Your task to perform on an android device: Is it going to rain this weekend? Image 0: 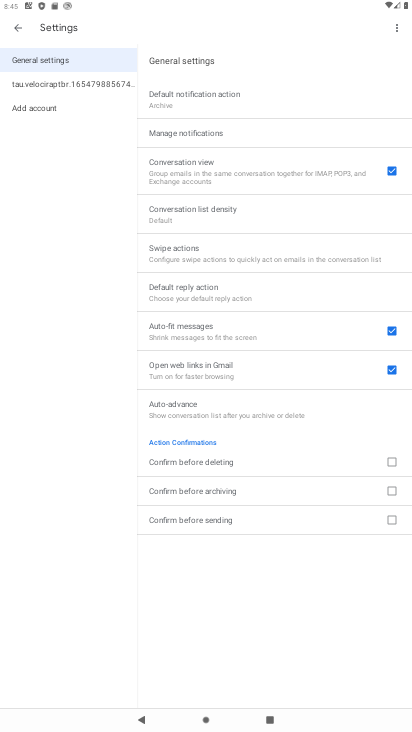
Step 0: press home button
Your task to perform on an android device: Is it going to rain this weekend? Image 1: 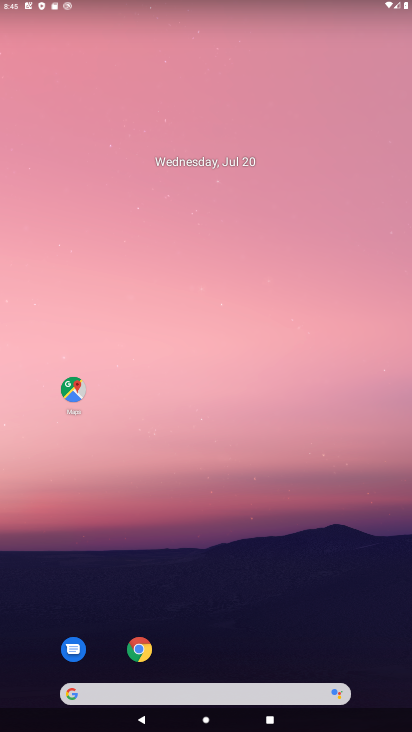
Step 1: drag from (184, 691) to (201, 87)
Your task to perform on an android device: Is it going to rain this weekend? Image 2: 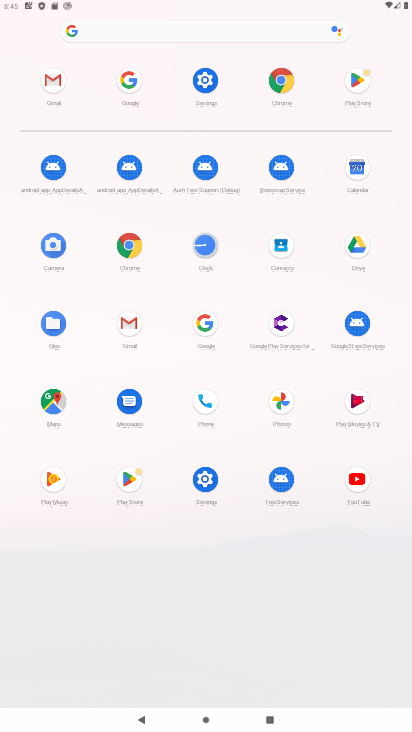
Step 2: click (203, 326)
Your task to perform on an android device: Is it going to rain this weekend? Image 3: 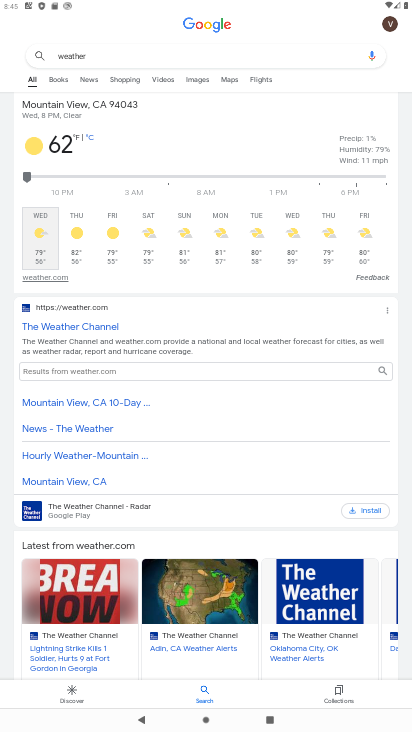
Step 3: click (157, 250)
Your task to perform on an android device: Is it going to rain this weekend? Image 4: 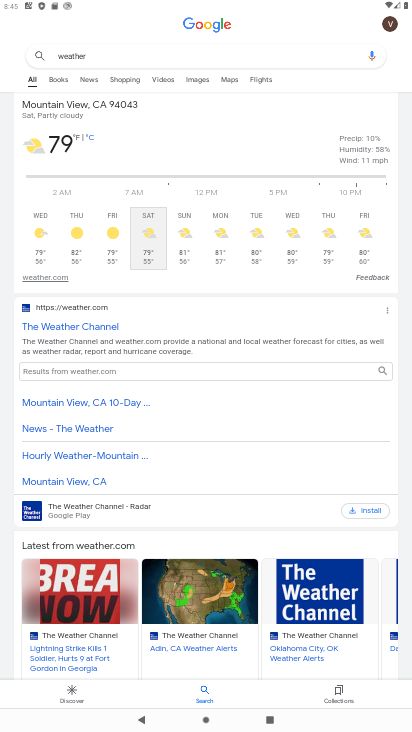
Step 4: task complete